Your task to perform on an android device: set an alarm Image 0: 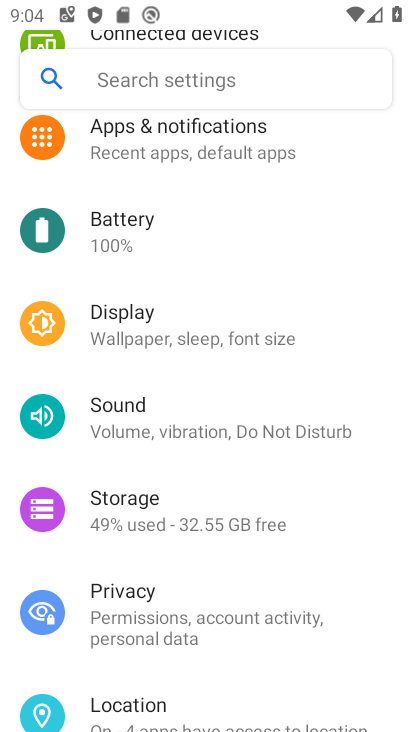
Step 0: drag from (298, 596) to (312, 412)
Your task to perform on an android device: set an alarm Image 1: 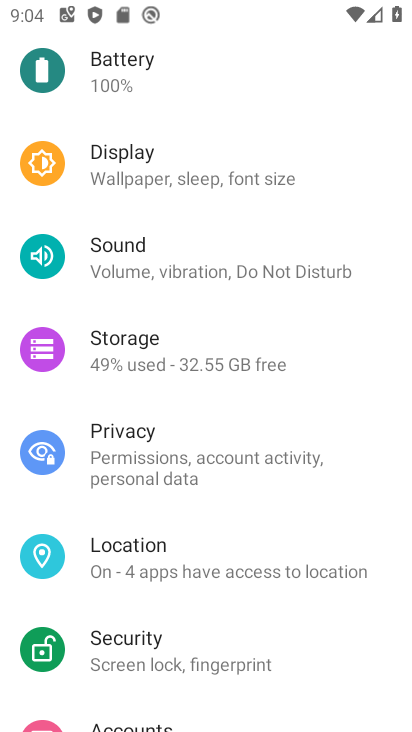
Step 1: press home button
Your task to perform on an android device: set an alarm Image 2: 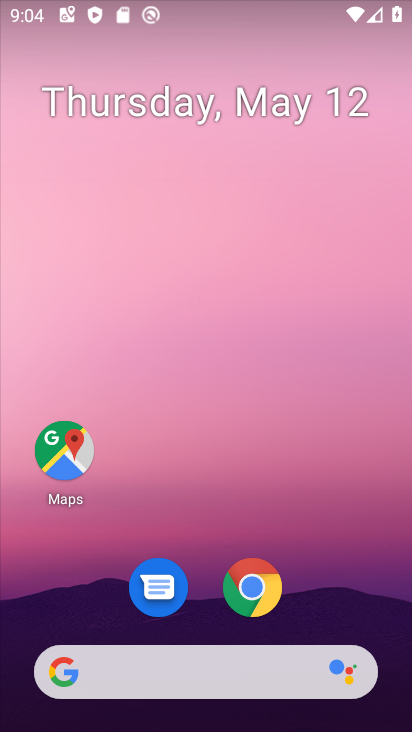
Step 2: drag from (315, 560) to (277, 218)
Your task to perform on an android device: set an alarm Image 3: 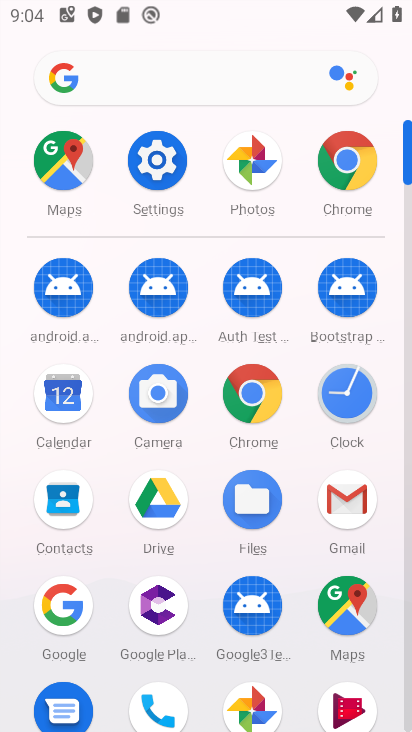
Step 3: click (335, 389)
Your task to perform on an android device: set an alarm Image 4: 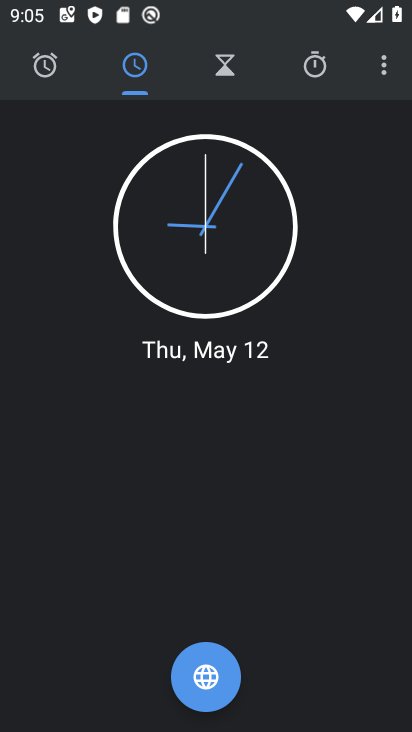
Step 4: click (51, 68)
Your task to perform on an android device: set an alarm Image 5: 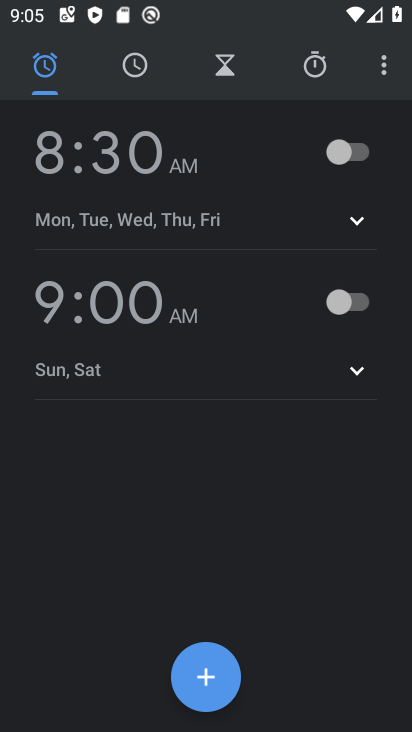
Step 5: click (345, 157)
Your task to perform on an android device: set an alarm Image 6: 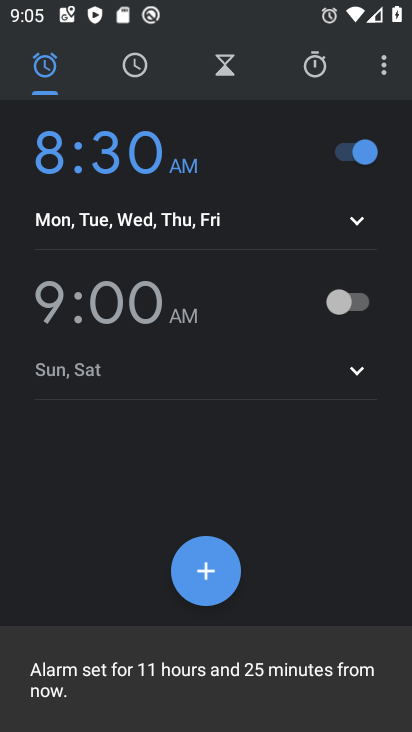
Step 6: click (347, 230)
Your task to perform on an android device: set an alarm Image 7: 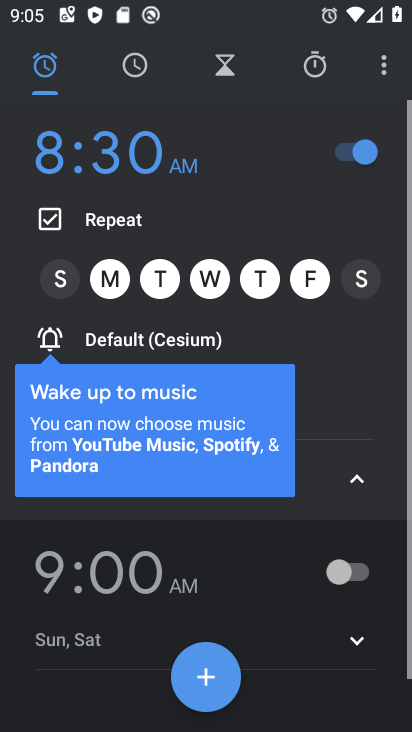
Step 7: click (63, 261)
Your task to perform on an android device: set an alarm Image 8: 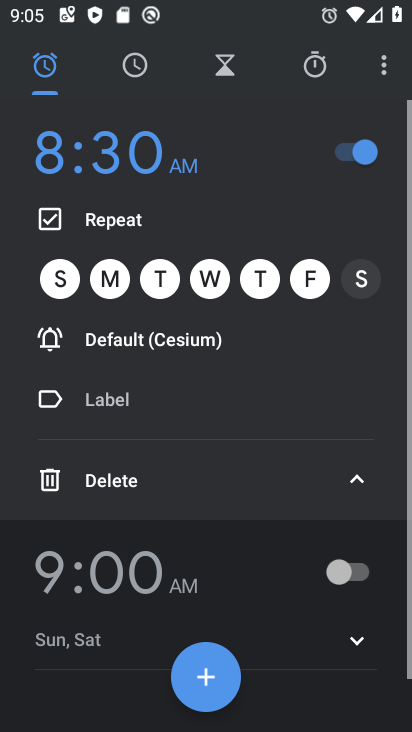
Step 8: click (363, 295)
Your task to perform on an android device: set an alarm Image 9: 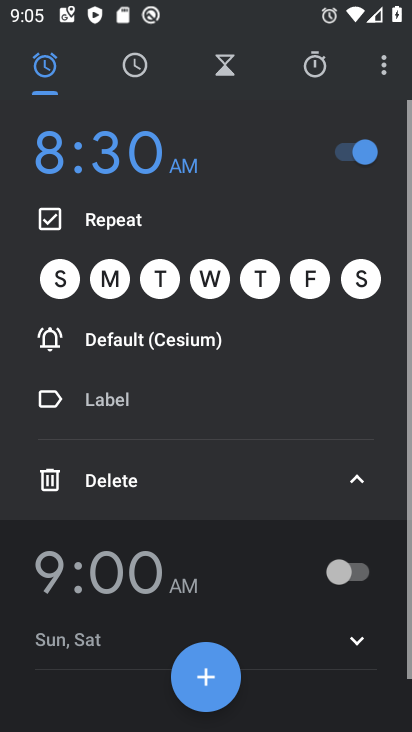
Step 9: click (355, 487)
Your task to perform on an android device: set an alarm Image 10: 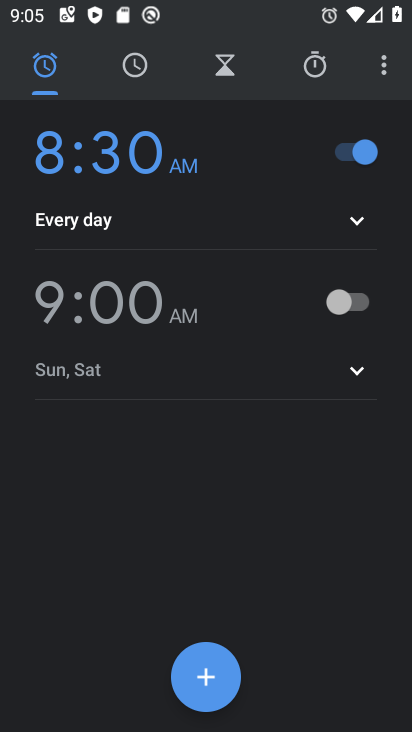
Step 10: task complete